Your task to perform on an android device: Open the map Image 0: 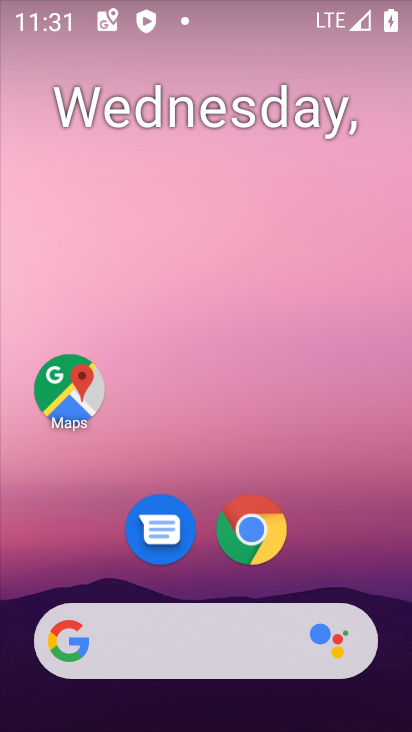
Step 0: click (79, 398)
Your task to perform on an android device: Open the map Image 1: 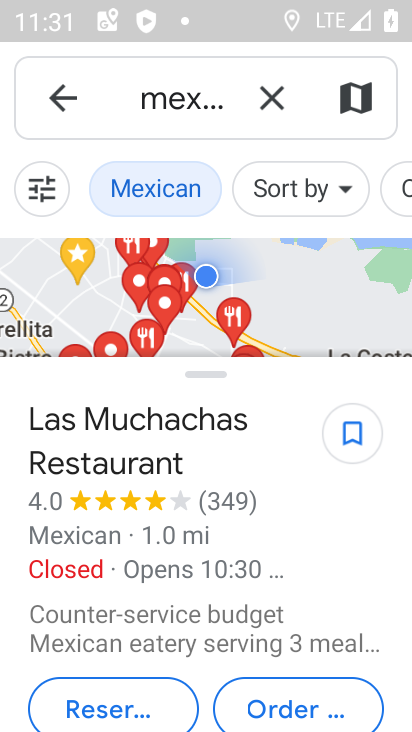
Step 1: task complete